Your task to perform on an android device: Go to privacy settings Image 0: 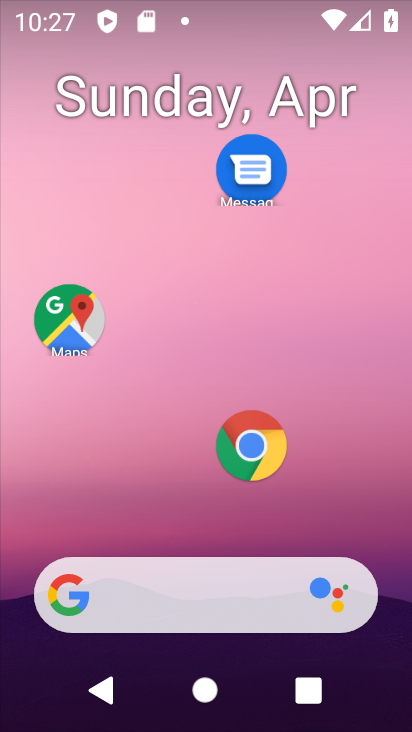
Step 0: press home button
Your task to perform on an android device: Go to privacy settings Image 1: 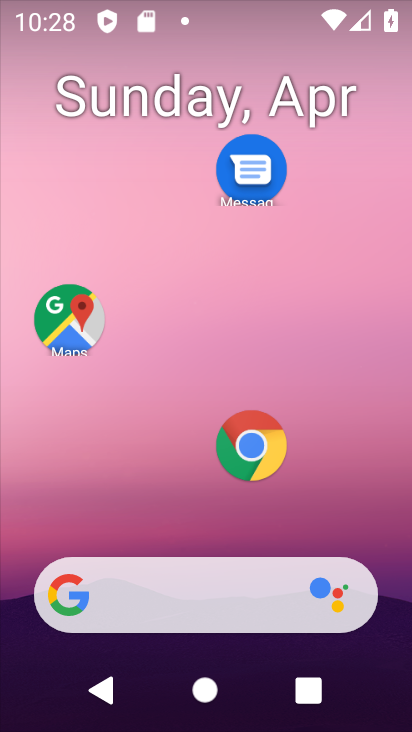
Step 1: drag from (201, 497) to (326, 86)
Your task to perform on an android device: Go to privacy settings Image 2: 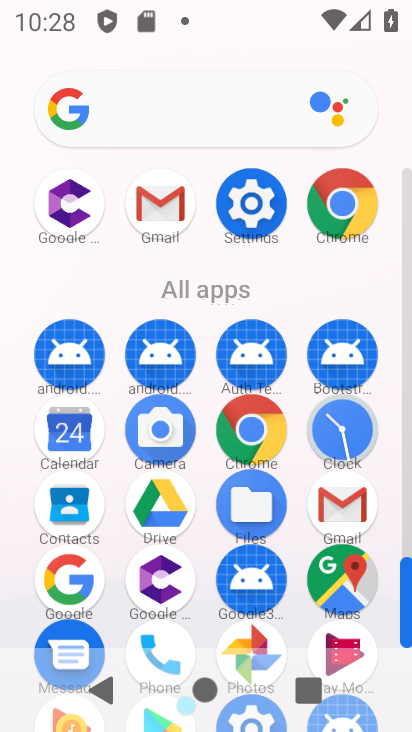
Step 2: click (253, 209)
Your task to perform on an android device: Go to privacy settings Image 3: 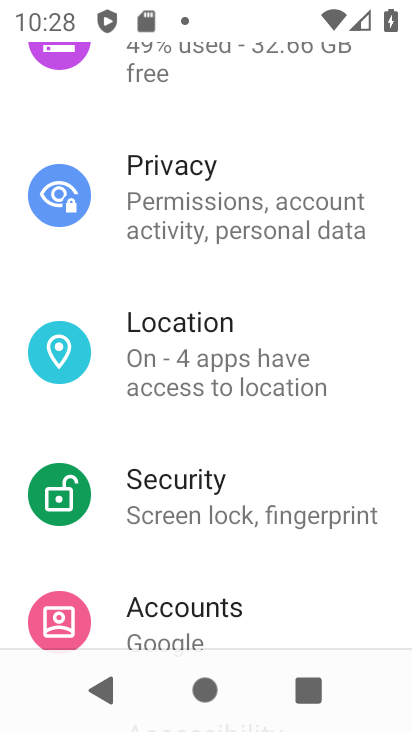
Step 3: click (222, 206)
Your task to perform on an android device: Go to privacy settings Image 4: 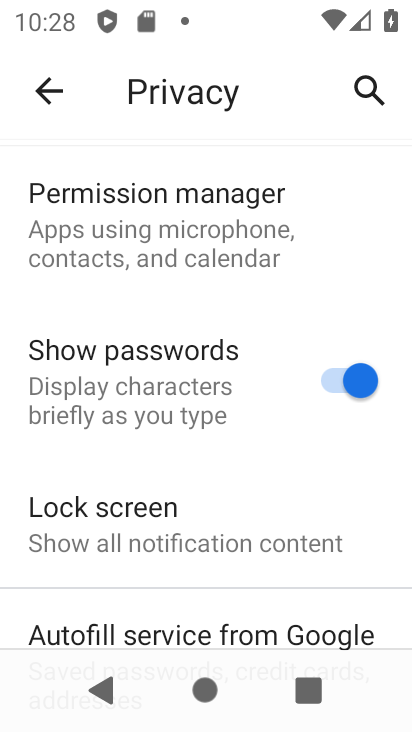
Step 4: task complete